Your task to perform on an android device: Play the last video I watched on Youtube Image 0: 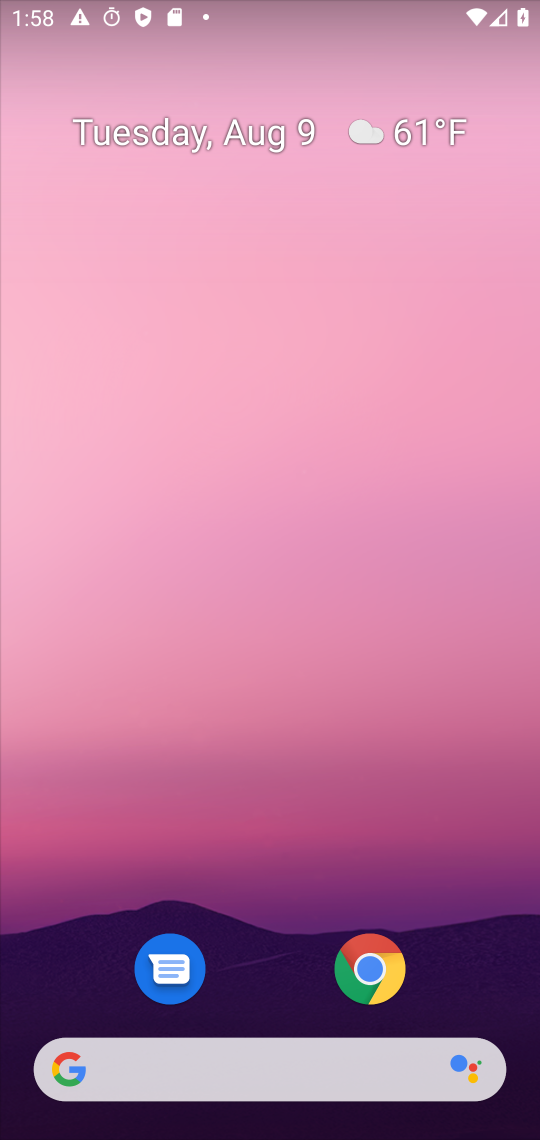
Step 0: press home button
Your task to perform on an android device: Play the last video I watched on Youtube Image 1: 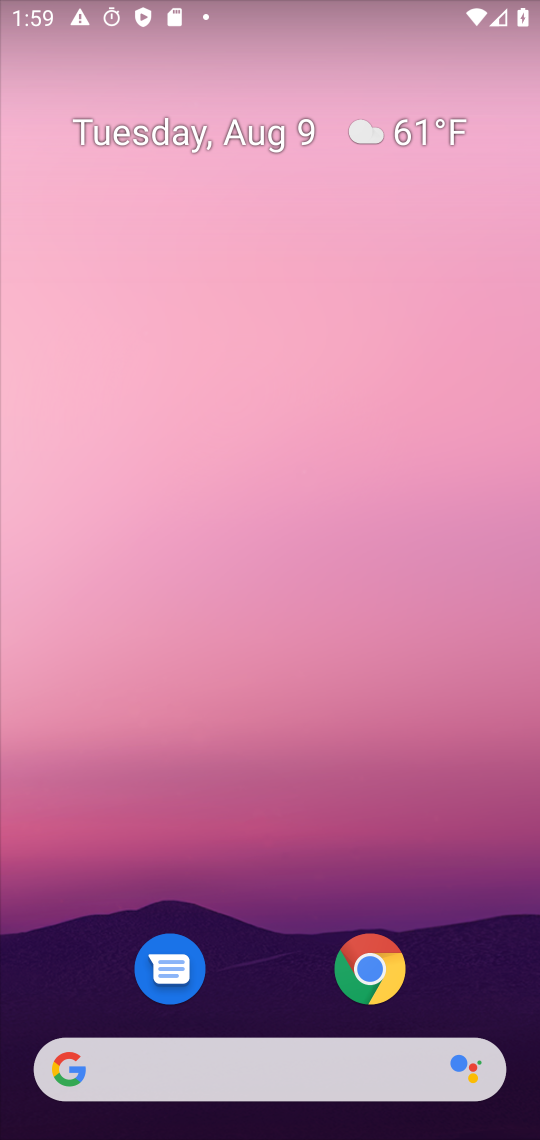
Step 1: drag from (265, 1106) to (99, 306)
Your task to perform on an android device: Play the last video I watched on Youtube Image 2: 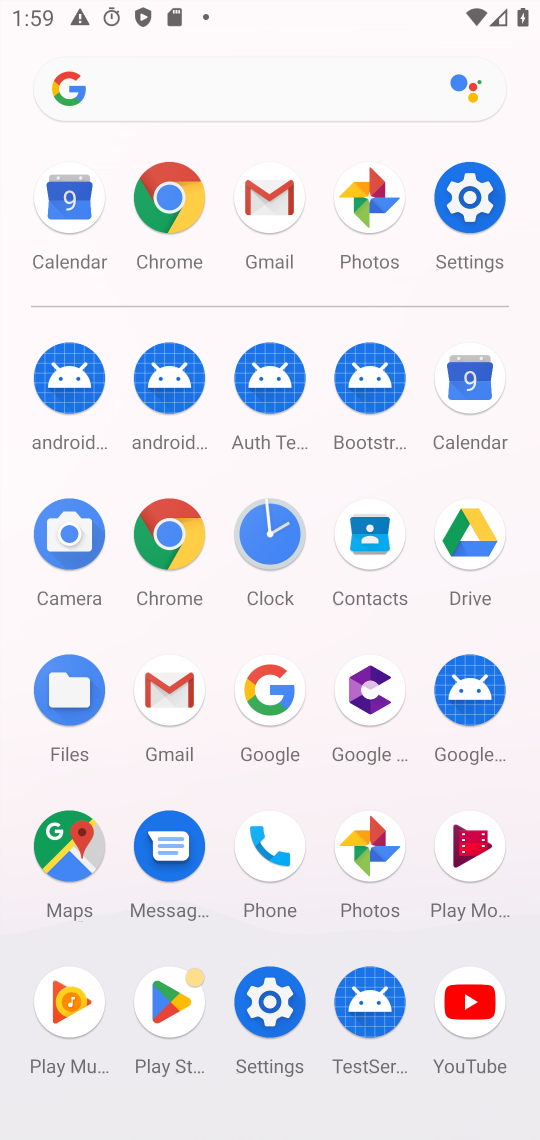
Step 2: click (481, 1010)
Your task to perform on an android device: Play the last video I watched on Youtube Image 3: 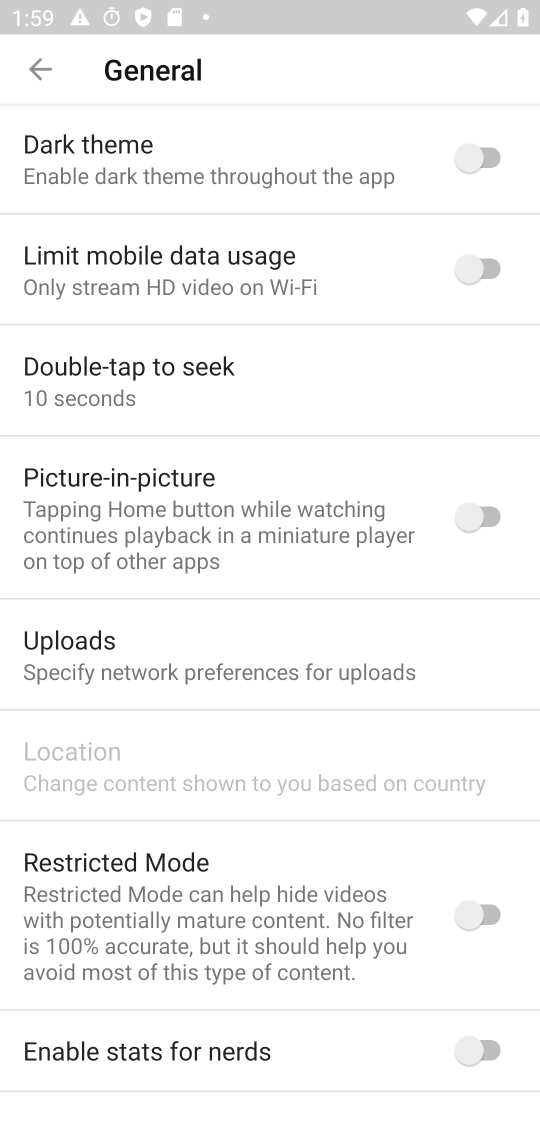
Step 3: click (40, 63)
Your task to perform on an android device: Play the last video I watched on Youtube Image 4: 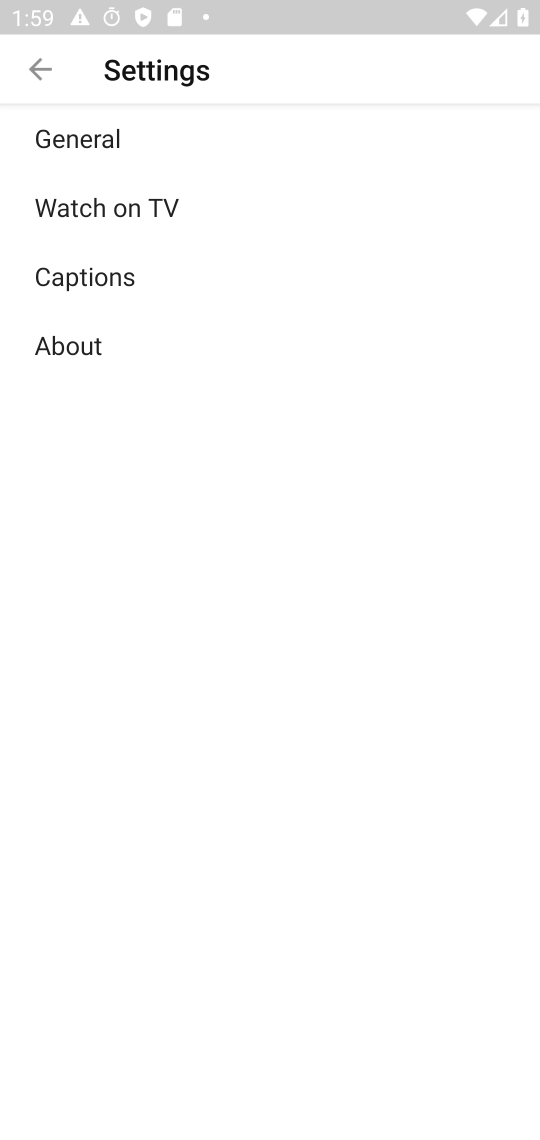
Step 4: click (34, 68)
Your task to perform on an android device: Play the last video I watched on Youtube Image 5: 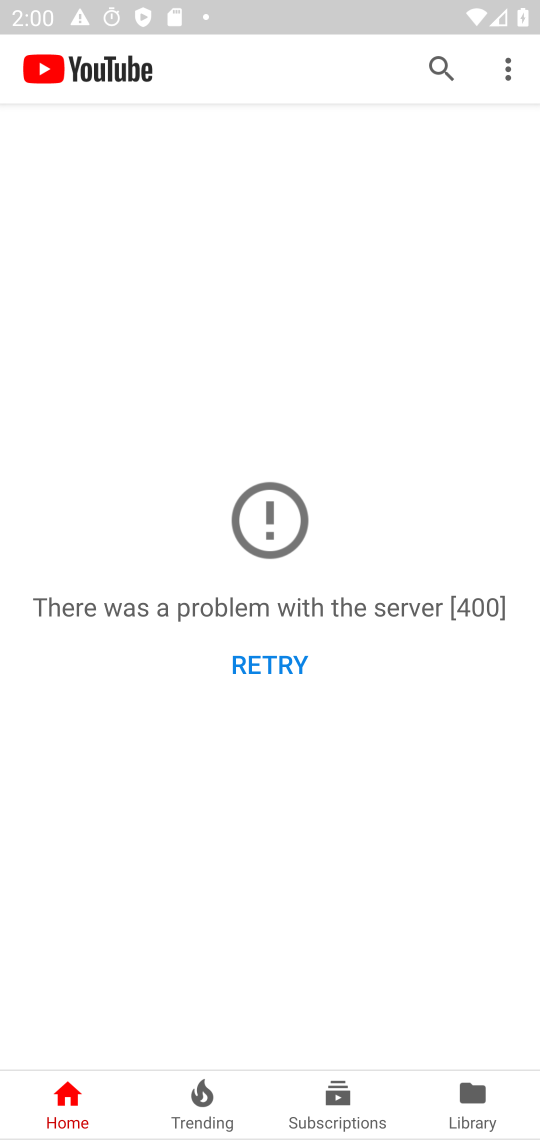
Step 5: click (482, 1112)
Your task to perform on an android device: Play the last video I watched on Youtube Image 6: 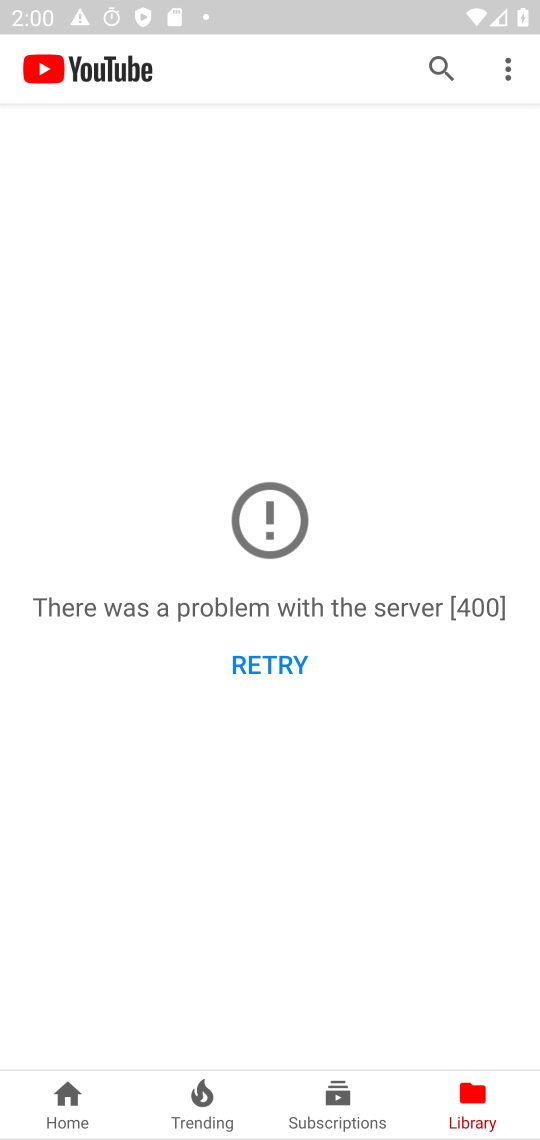
Step 6: click (482, 1112)
Your task to perform on an android device: Play the last video I watched on Youtube Image 7: 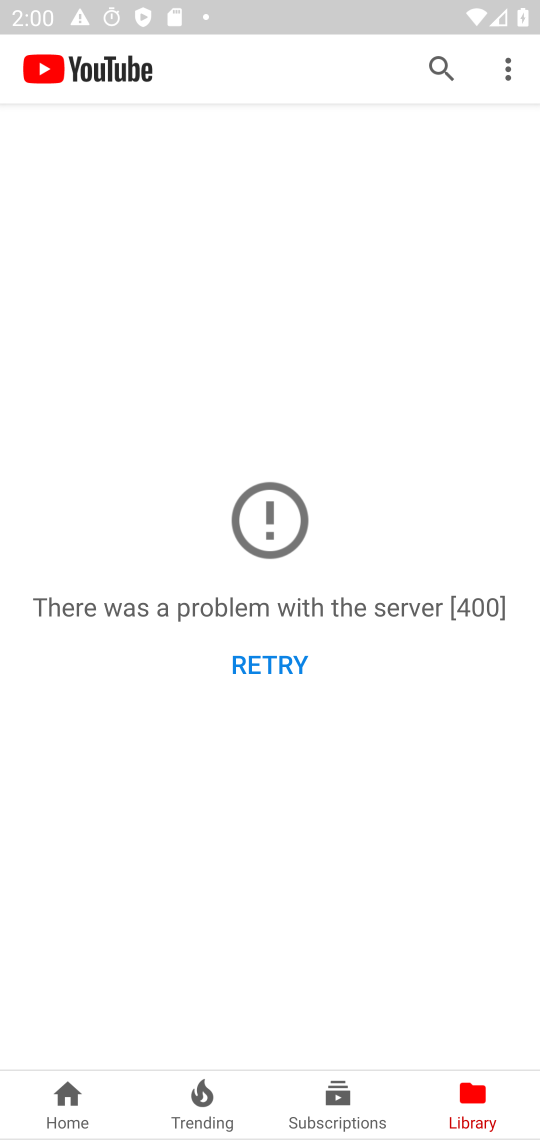
Step 7: click (279, 652)
Your task to perform on an android device: Play the last video I watched on Youtube Image 8: 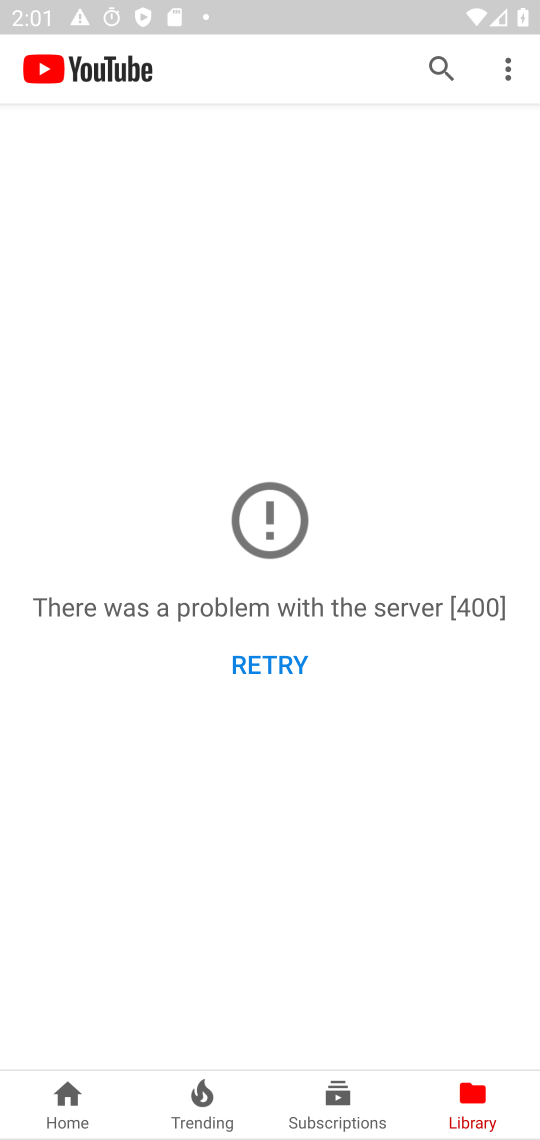
Step 8: task complete